Your task to perform on an android device: install app "File Manager" Image 0: 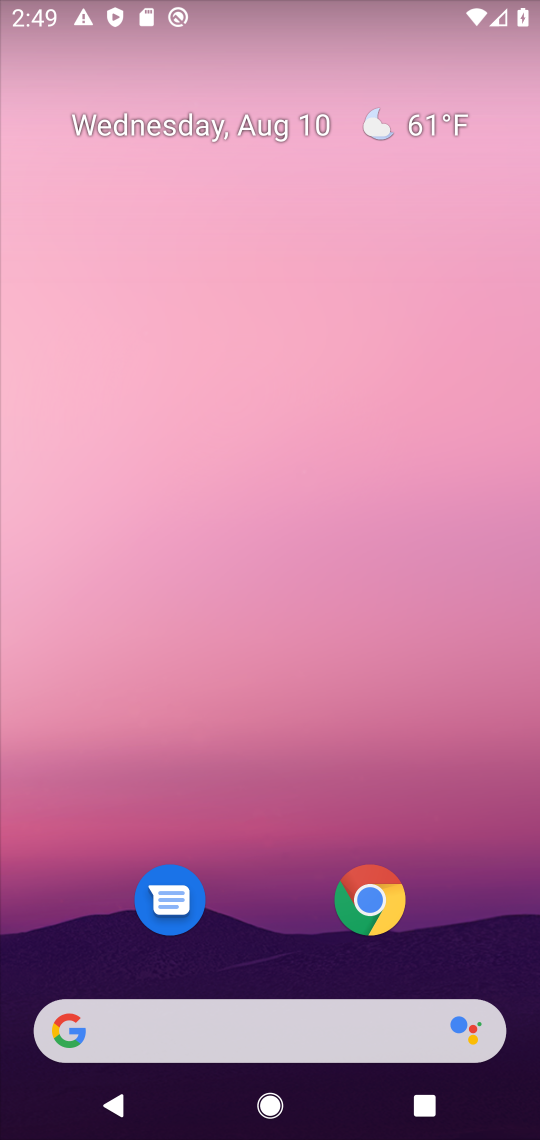
Step 0: drag from (228, 984) to (260, 163)
Your task to perform on an android device: install app "File Manager" Image 1: 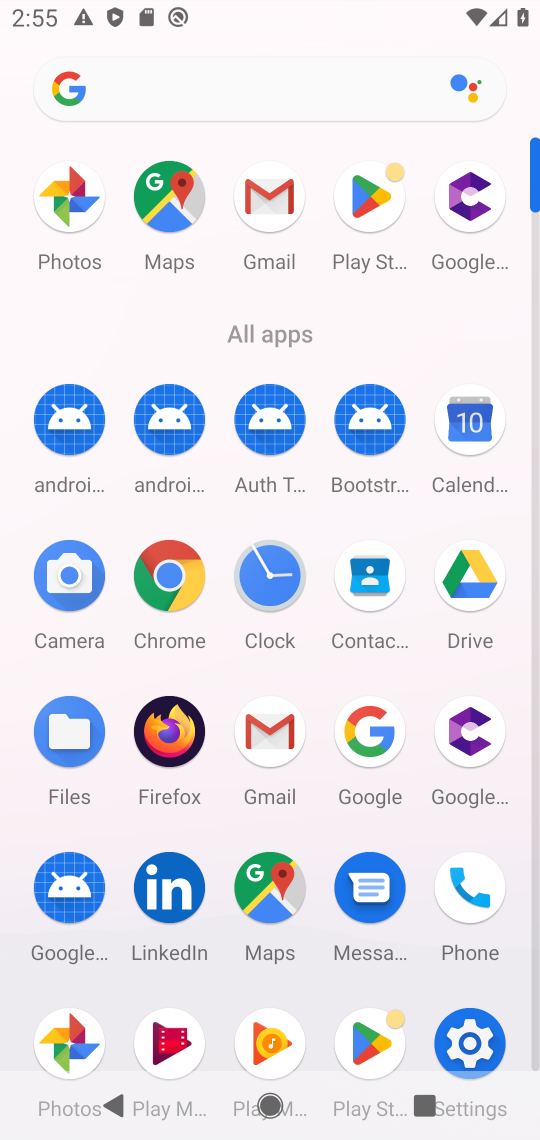
Step 1: click (78, 764)
Your task to perform on an android device: install app "File Manager" Image 2: 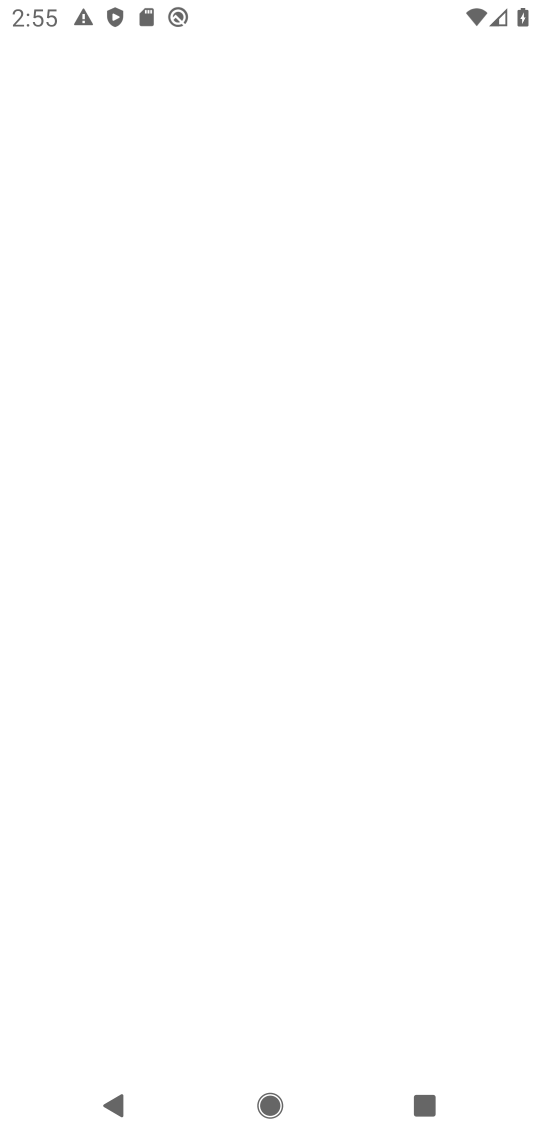
Step 2: task complete